Your task to perform on an android device: Open Google Maps and go to "Timeline" Image 0: 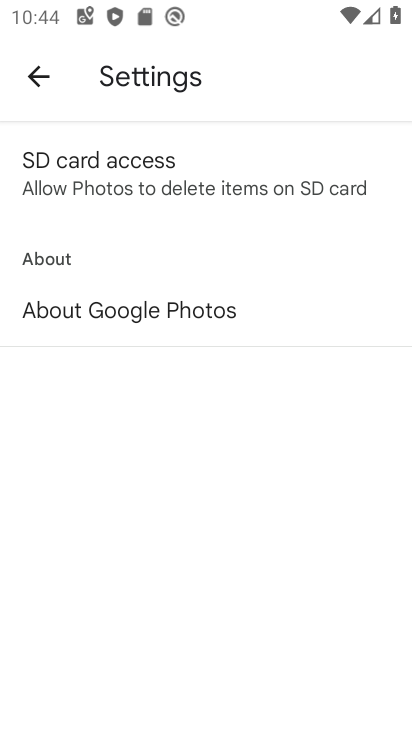
Step 0: press home button
Your task to perform on an android device: Open Google Maps and go to "Timeline" Image 1: 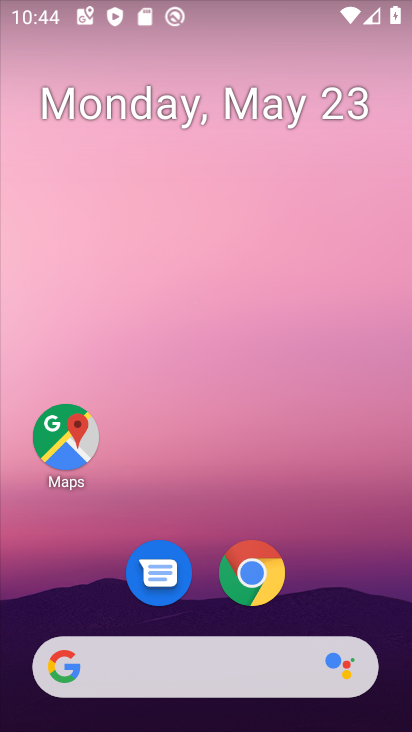
Step 1: drag from (263, 669) to (304, 184)
Your task to perform on an android device: Open Google Maps and go to "Timeline" Image 2: 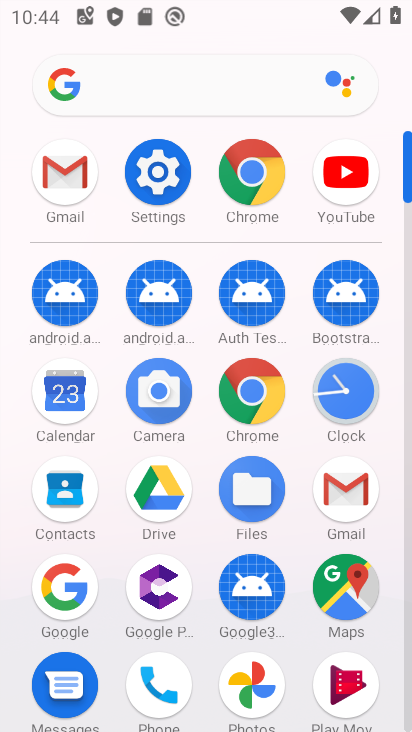
Step 2: click (165, 181)
Your task to perform on an android device: Open Google Maps and go to "Timeline" Image 3: 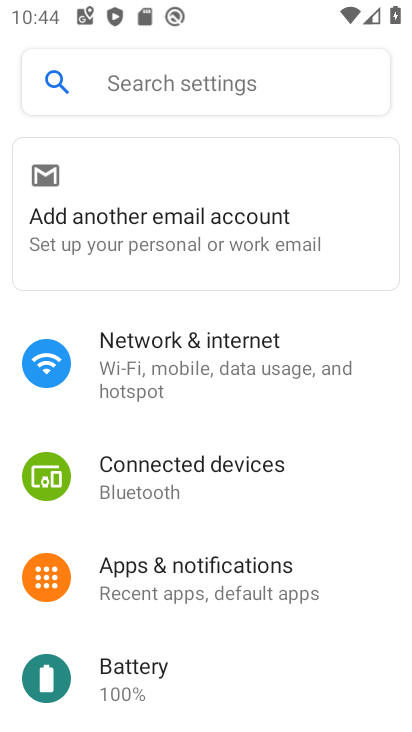
Step 3: press home button
Your task to perform on an android device: Open Google Maps and go to "Timeline" Image 4: 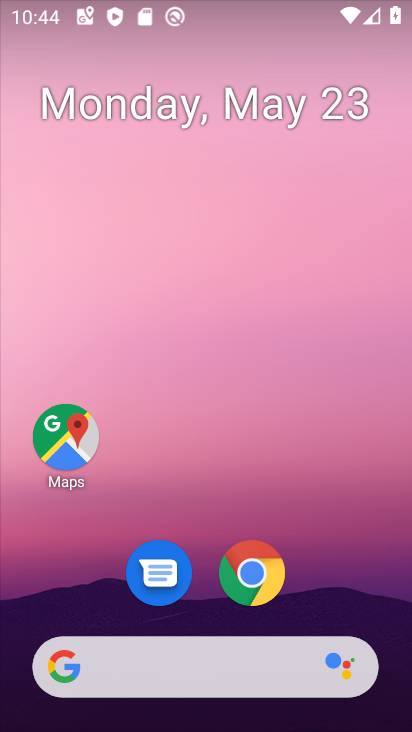
Step 4: click (63, 438)
Your task to perform on an android device: Open Google Maps and go to "Timeline" Image 5: 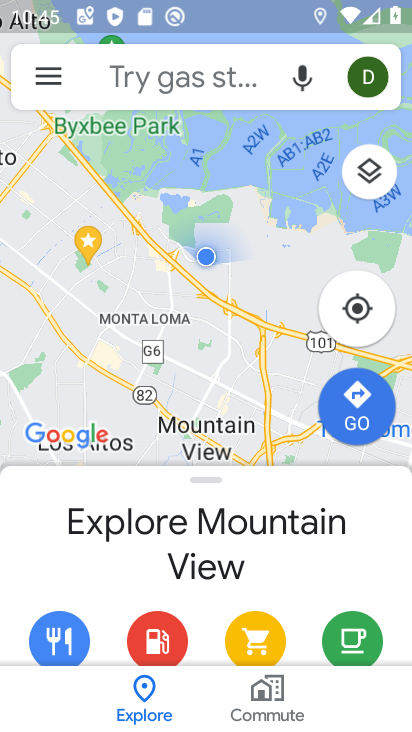
Step 5: click (50, 84)
Your task to perform on an android device: Open Google Maps and go to "Timeline" Image 6: 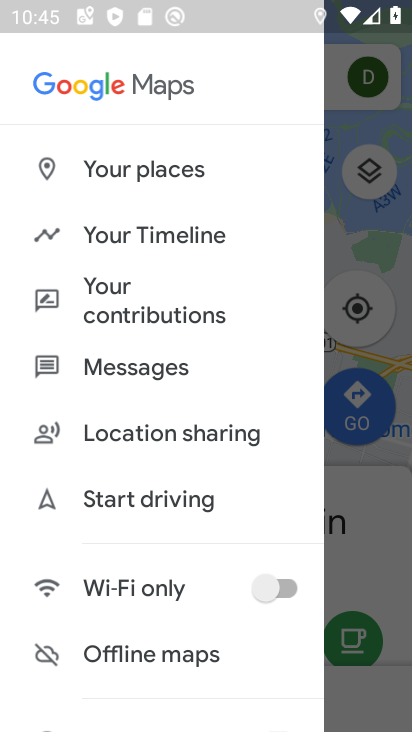
Step 6: click (172, 235)
Your task to perform on an android device: Open Google Maps and go to "Timeline" Image 7: 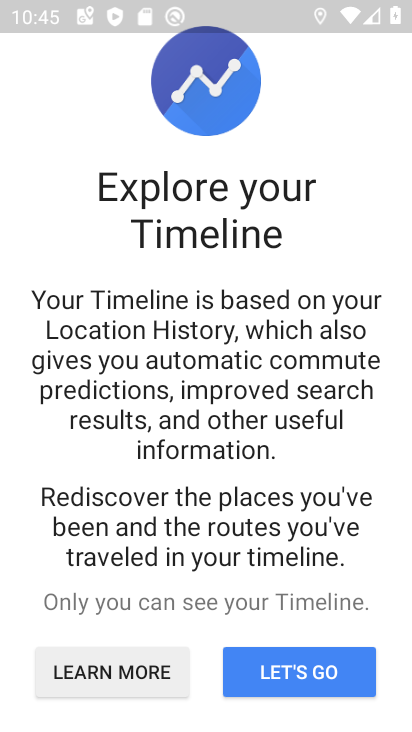
Step 7: click (289, 681)
Your task to perform on an android device: Open Google Maps and go to "Timeline" Image 8: 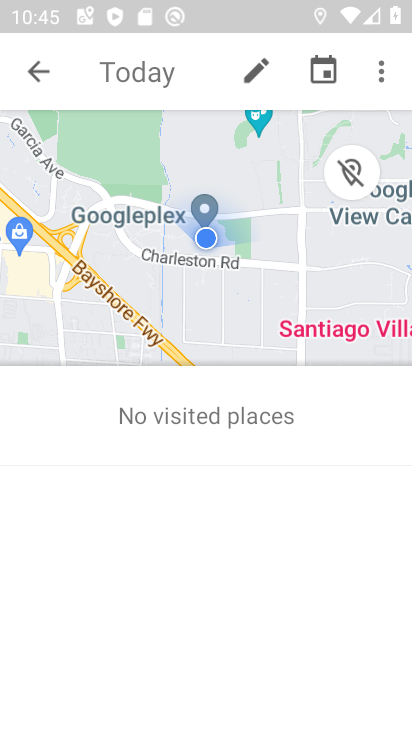
Step 8: task complete